Your task to perform on an android device: Go to notification settings Image 0: 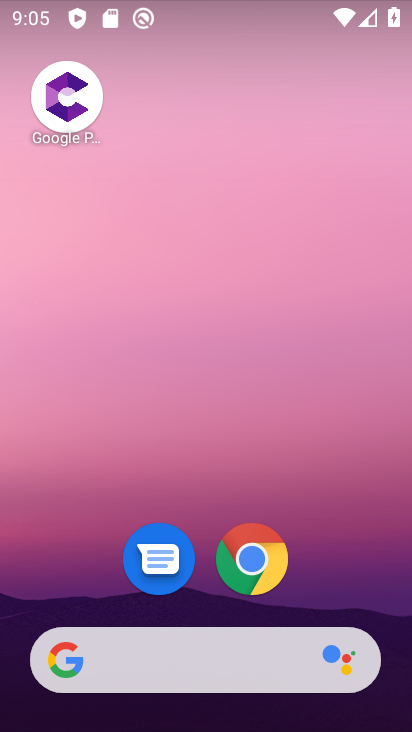
Step 0: task complete